Your task to perform on an android device: Set the phone to "Do not disturb". Image 0: 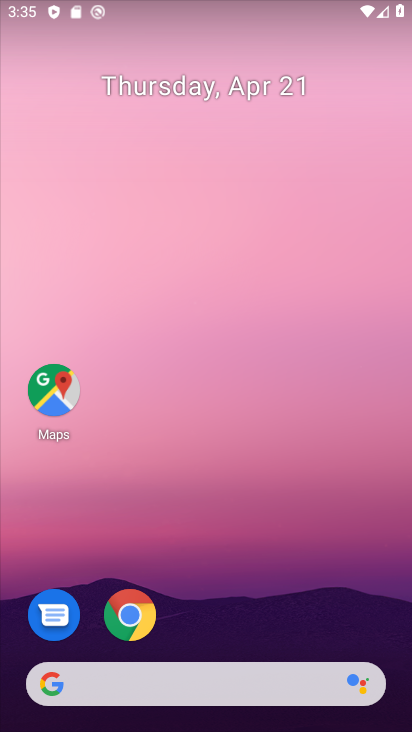
Step 0: drag from (200, 643) to (308, 132)
Your task to perform on an android device: Set the phone to "Do not disturb". Image 1: 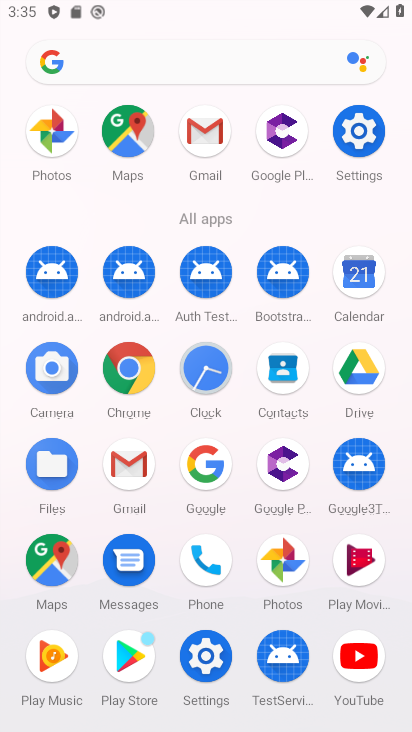
Step 1: click (208, 666)
Your task to perform on an android device: Set the phone to "Do not disturb". Image 2: 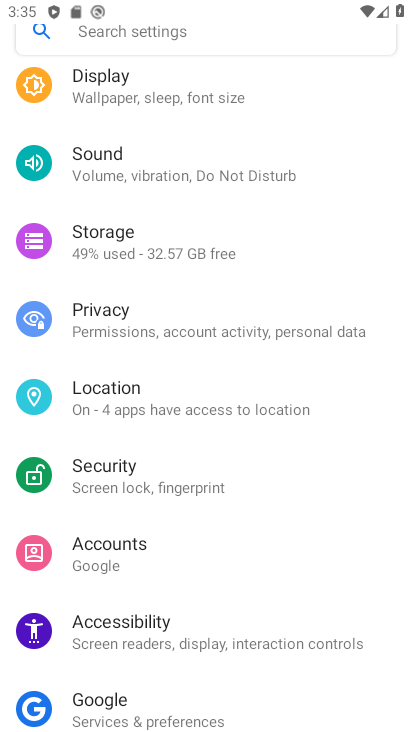
Step 2: drag from (238, 238) to (235, 559)
Your task to perform on an android device: Set the phone to "Do not disturb". Image 3: 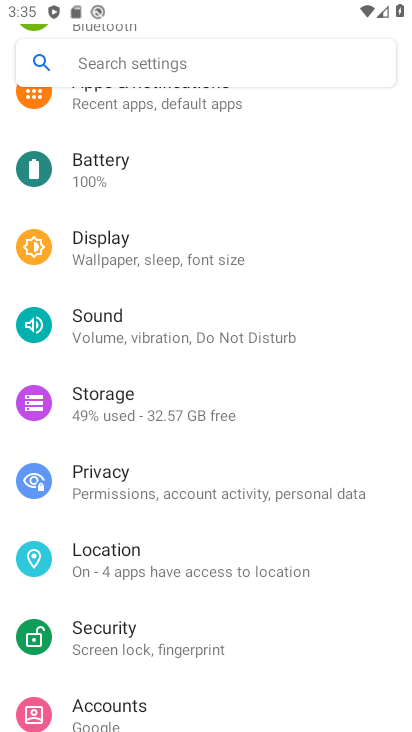
Step 3: click (204, 108)
Your task to perform on an android device: Set the phone to "Do not disturb". Image 4: 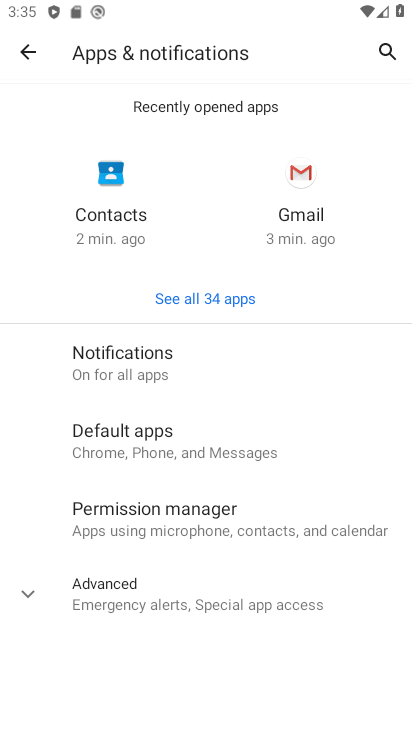
Step 4: click (235, 372)
Your task to perform on an android device: Set the phone to "Do not disturb". Image 5: 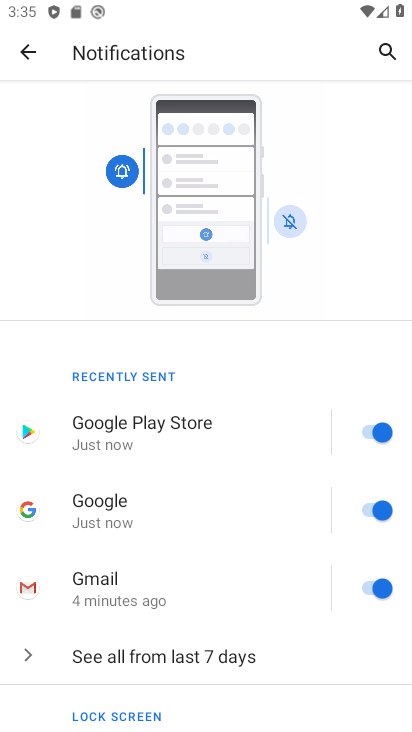
Step 5: drag from (182, 614) to (334, 201)
Your task to perform on an android device: Set the phone to "Do not disturb". Image 6: 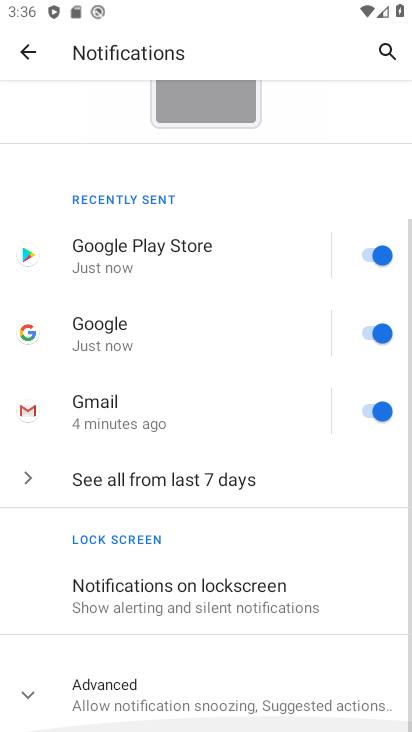
Step 6: click (205, 688)
Your task to perform on an android device: Set the phone to "Do not disturb". Image 7: 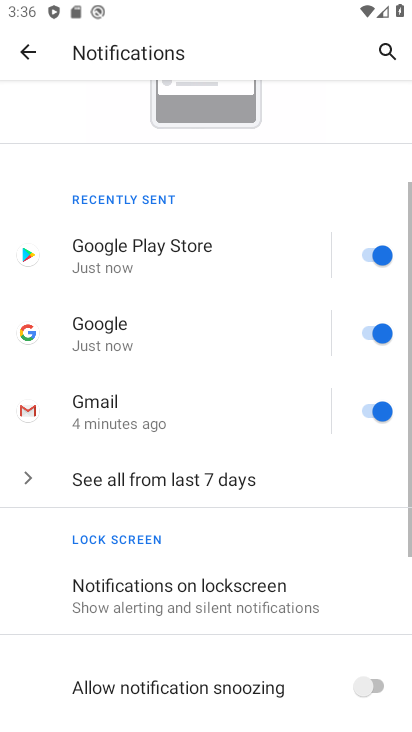
Step 7: drag from (221, 601) to (396, 486)
Your task to perform on an android device: Set the phone to "Do not disturb". Image 8: 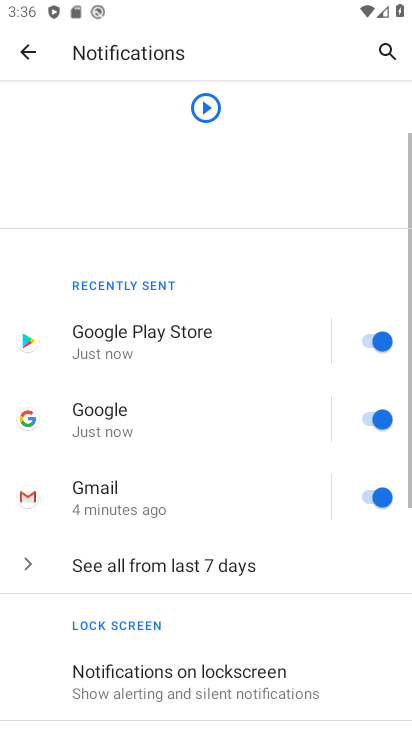
Step 8: drag from (202, 648) to (392, 265)
Your task to perform on an android device: Set the phone to "Do not disturb". Image 9: 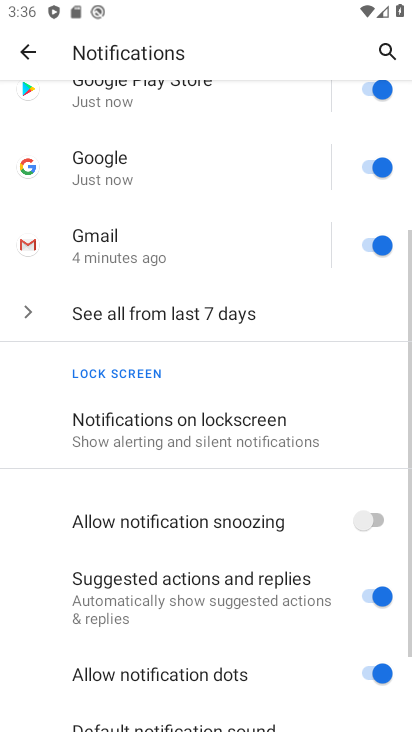
Step 9: drag from (155, 654) to (373, 144)
Your task to perform on an android device: Set the phone to "Do not disturb". Image 10: 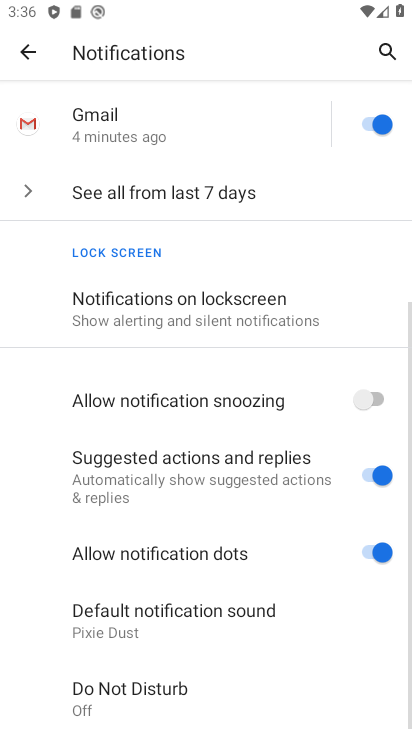
Step 10: click (188, 721)
Your task to perform on an android device: Set the phone to "Do not disturb". Image 11: 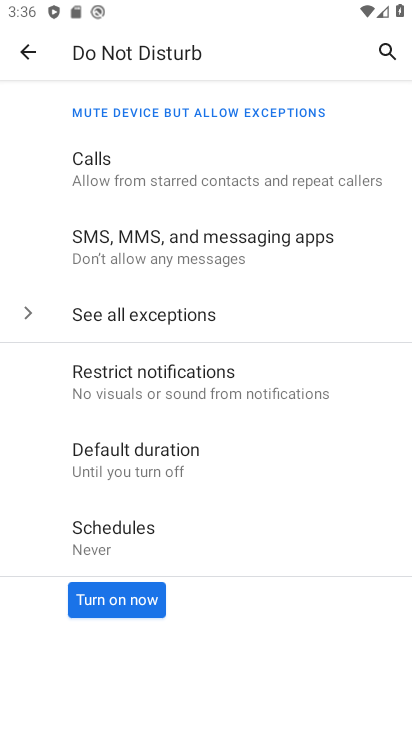
Step 11: click (148, 604)
Your task to perform on an android device: Set the phone to "Do not disturb". Image 12: 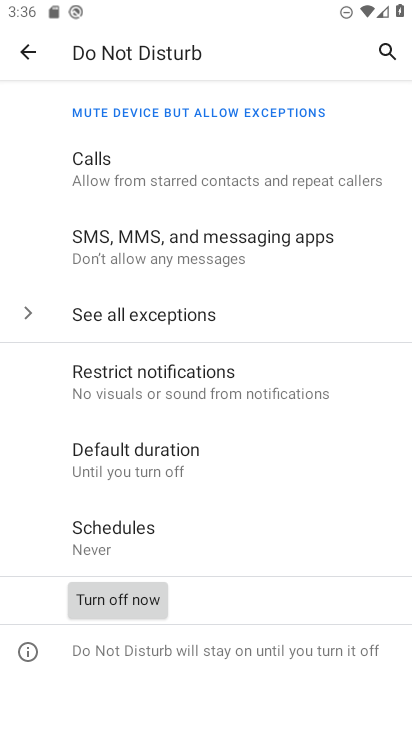
Step 12: task complete